Your task to perform on an android device: change the clock display to show seconds Image 0: 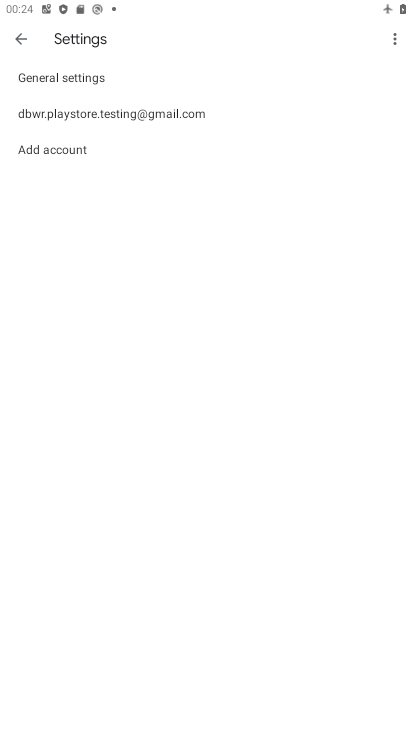
Step 0: press home button
Your task to perform on an android device: change the clock display to show seconds Image 1: 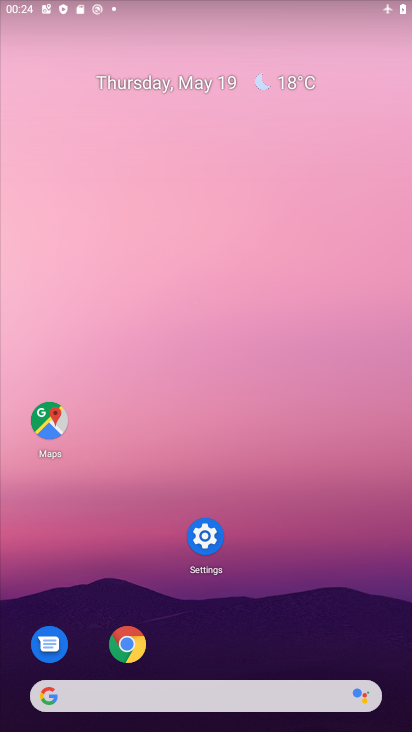
Step 1: drag from (330, 571) to (346, 122)
Your task to perform on an android device: change the clock display to show seconds Image 2: 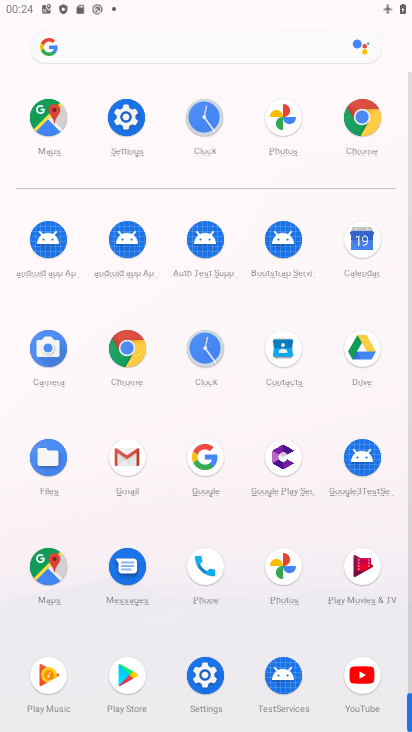
Step 2: click (206, 113)
Your task to perform on an android device: change the clock display to show seconds Image 3: 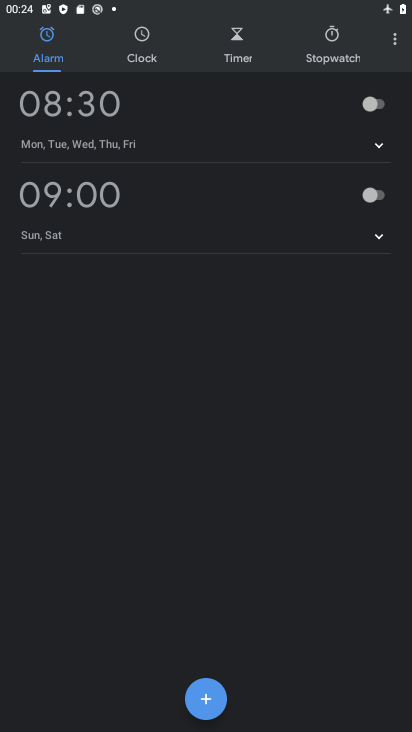
Step 3: click (395, 36)
Your task to perform on an android device: change the clock display to show seconds Image 4: 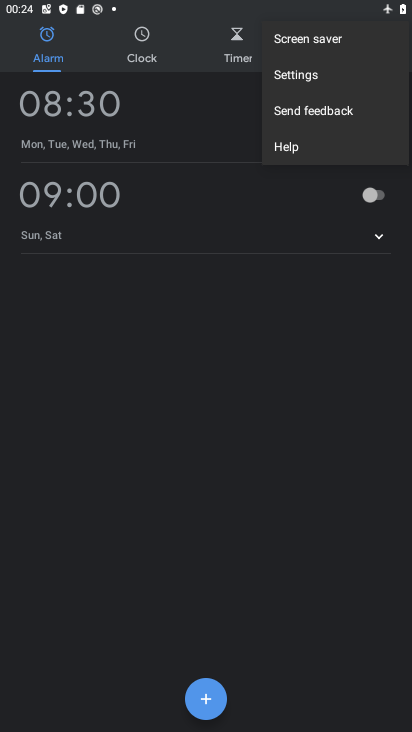
Step 4: click (304, 72)
Your task to perform on an android device: change the clock display to show seconds Image 5: 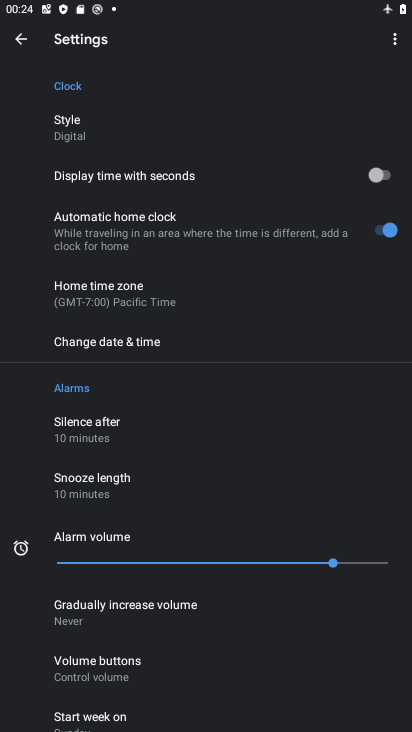
Step 5: click (377, 177)
Your task to perform on an android device: change the clock display to show seconds Image 6: 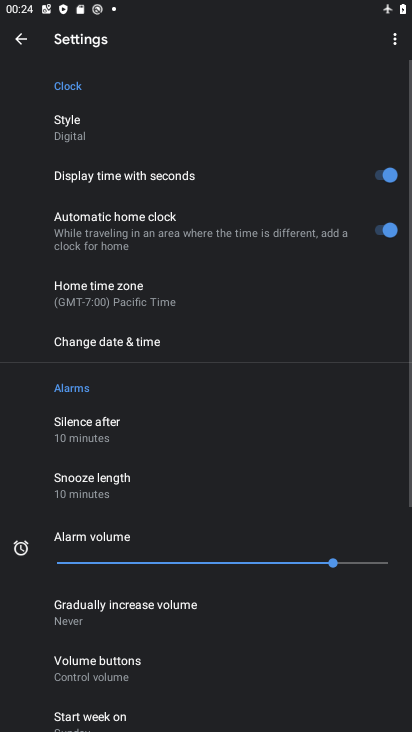
Step 6: task complete